Your task to perform on an android device: Go to eBay Image 0: 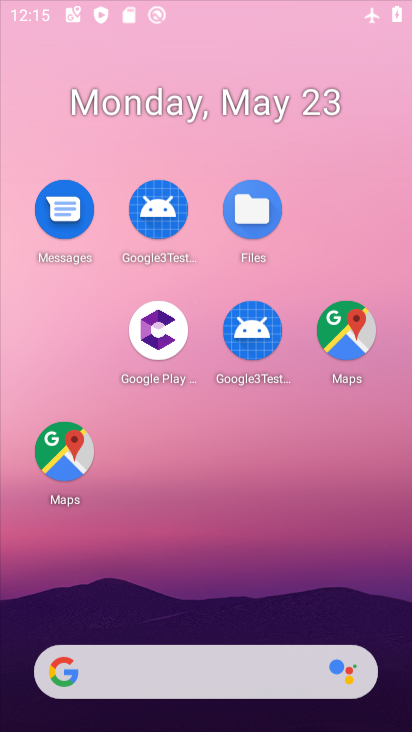
Step 0: click (178, 103)
Your task to perform on an android device: Go to eBay Image 1: 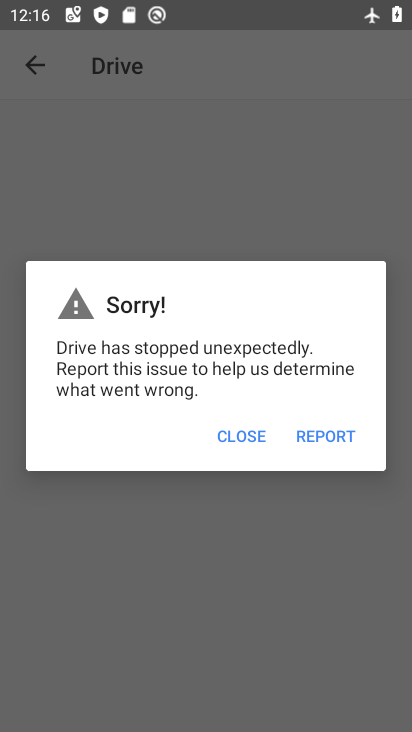
Step 1: click (189, 628)
Your task to perform on an android device: Go to eBay Image 2: 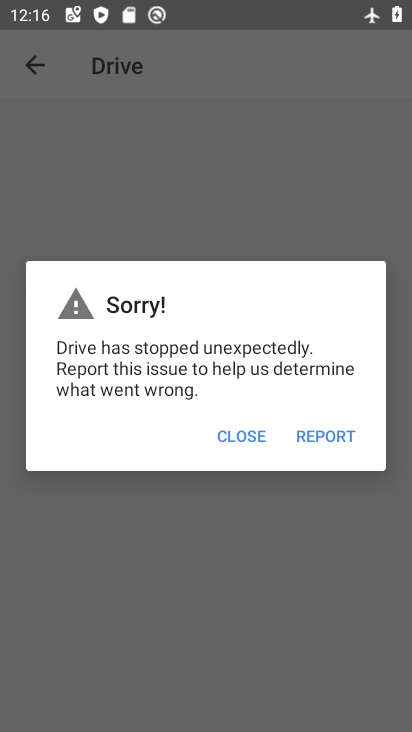
Step 2: press home button
Your task to perform on an android device: Go to eBay Image 3: 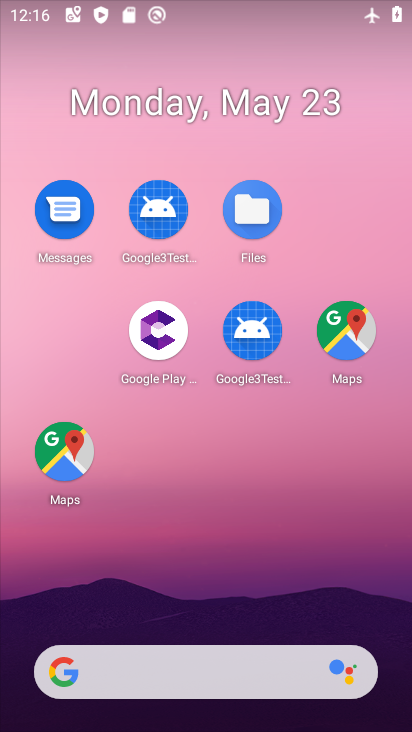
Step 3: drag from (230, 618) to (236, 202)
Your task to perform on an android device: Go to eBay Image 4: 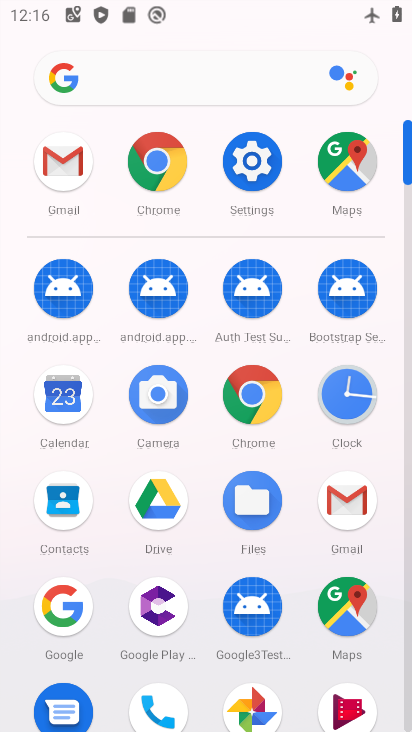
Step 4: click (159, 159)
Your task to perform on an android device: Go to eBay Image 5: 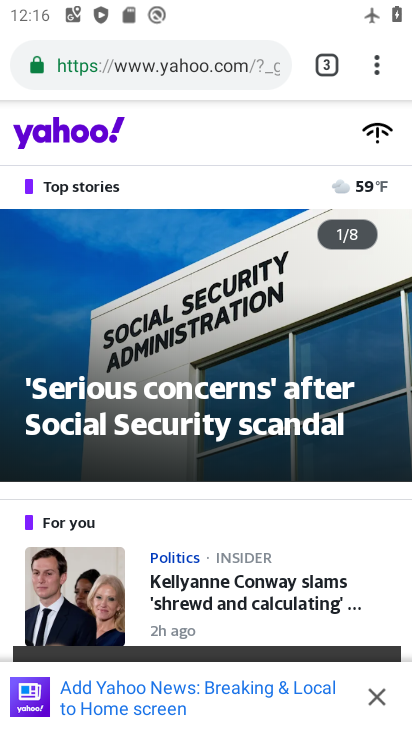
Step 5: click (312, 51)
Your task to perform on an android device: Go to eBay Image 6: 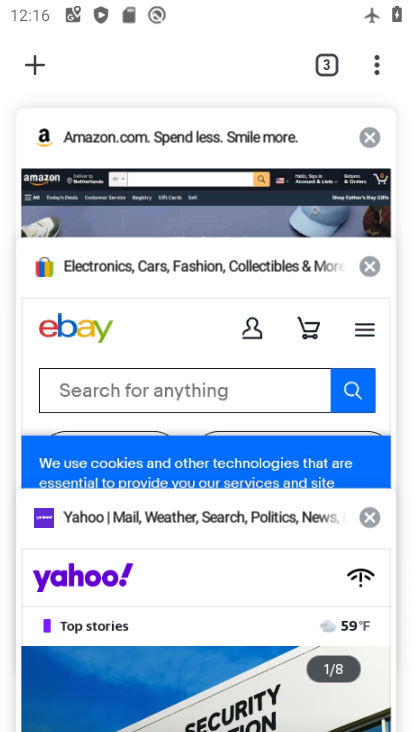
Step 6: click (91, 259)
Your task to perform on an android device: Go to eBay Image 7: 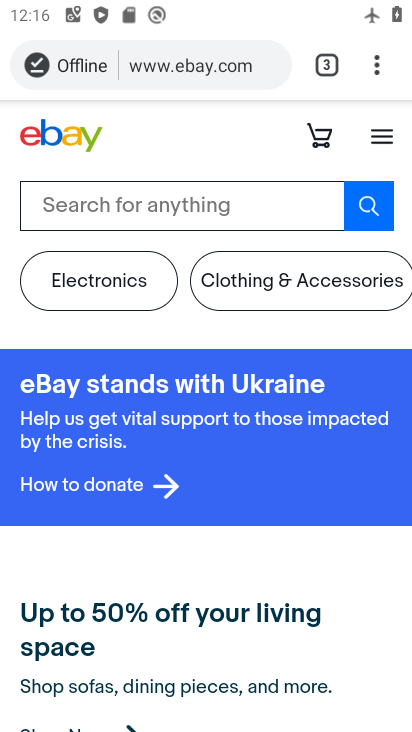
Step 7: task complete